Your task to perform on an android device: What time is it in Los Angeles? Image 0: 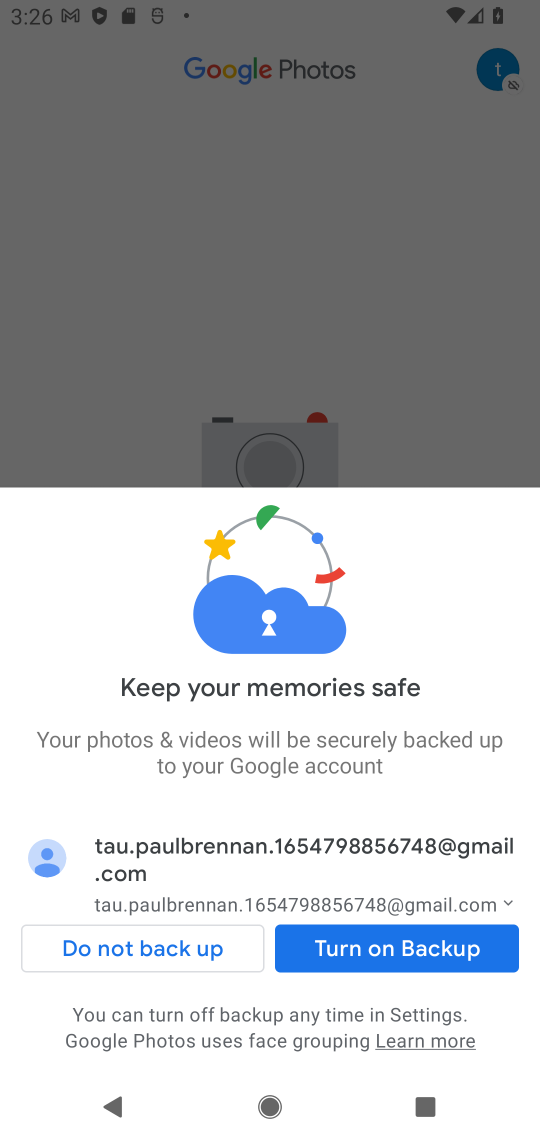
Step 0: press home button
Your task to perform on an android device: What time is it in Los Angeles? Image 1: 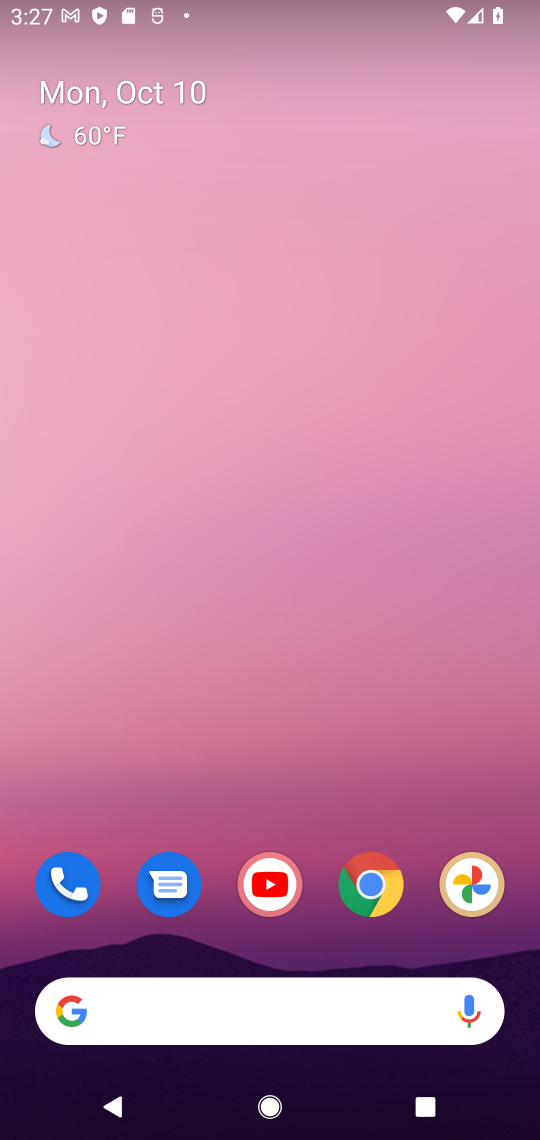
Step 1: click (368, 885)
Your task to perform on an android device: What time is it in Los Angeles? Image 2: 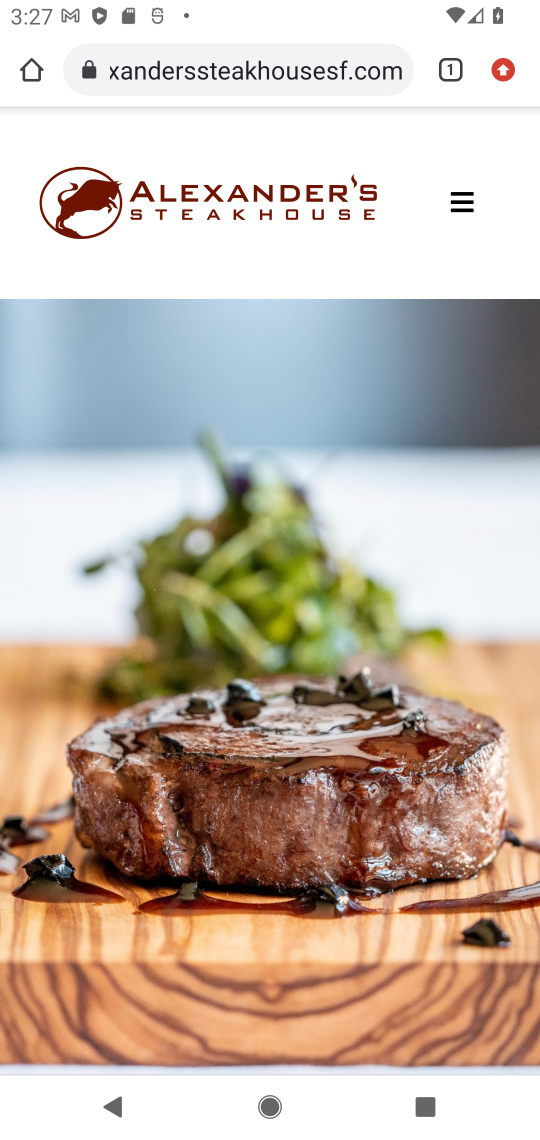
Step 2: click (244, 72)
Your task to perform on an android device: What time is it in Los Angeles? Image 3: 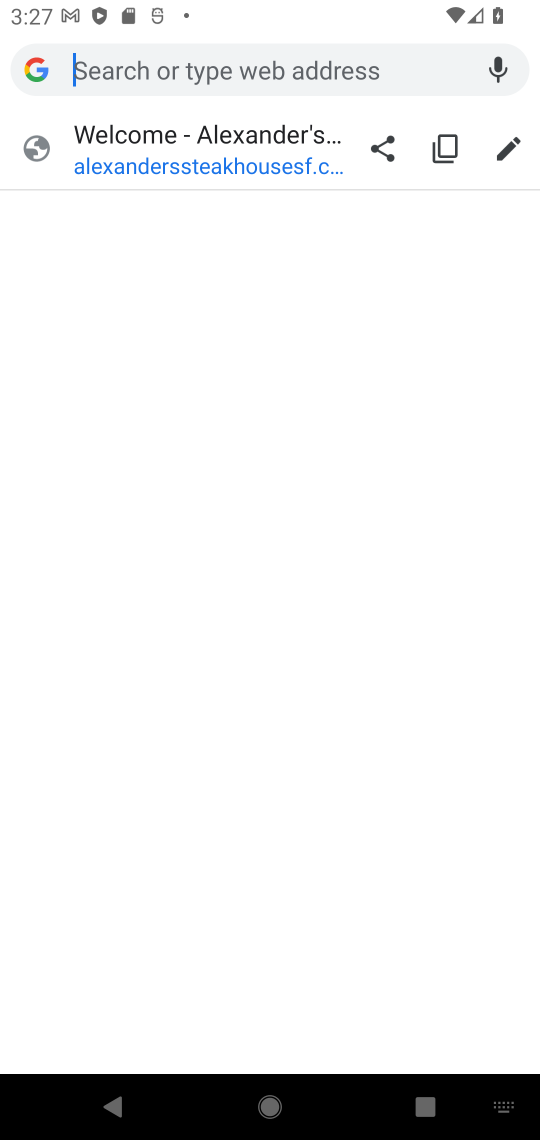
Step 3: type "What time is it in Los Angeles?"
Your task to perform on an android device: What time is it in Los Angeles? Image 4: 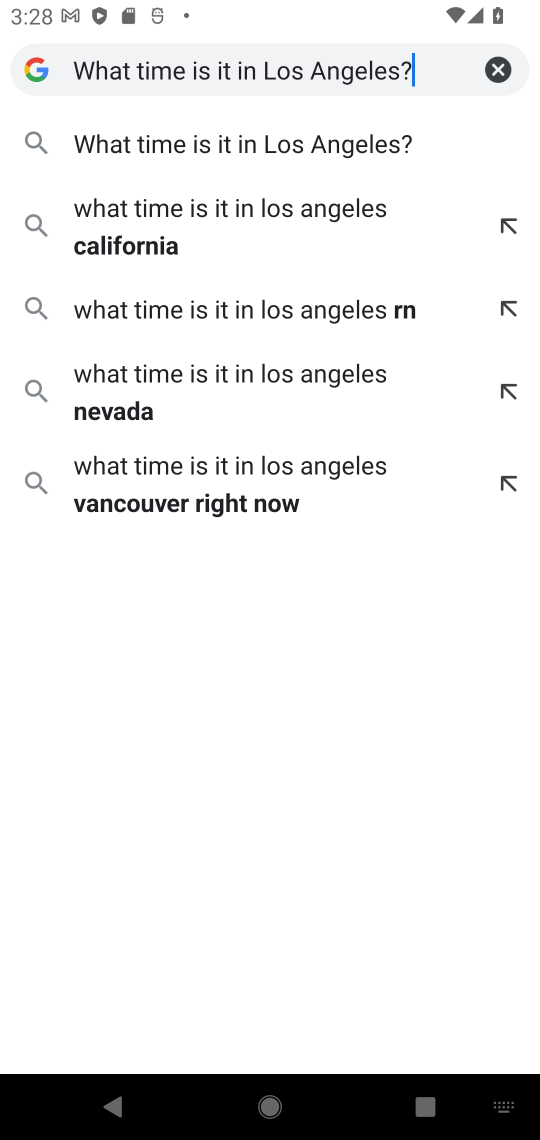
Step 4: click (107, 139)
Your task to perform on an android device: What time is it in Los Angeles? Image 5: 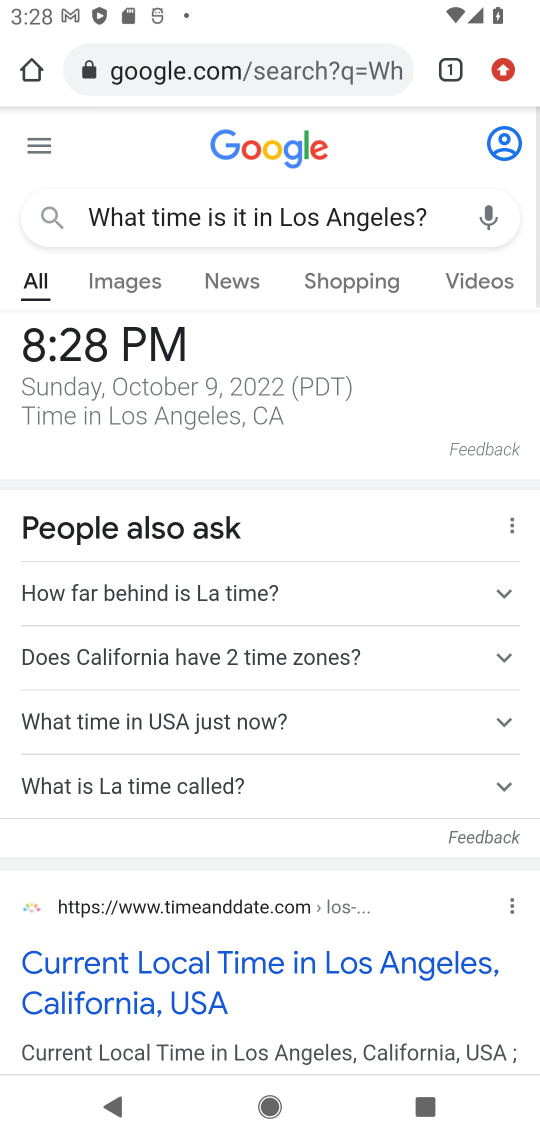
Step 5: task complete